Your task to perform on an android device: toggle translation in the chrome app Image 0: 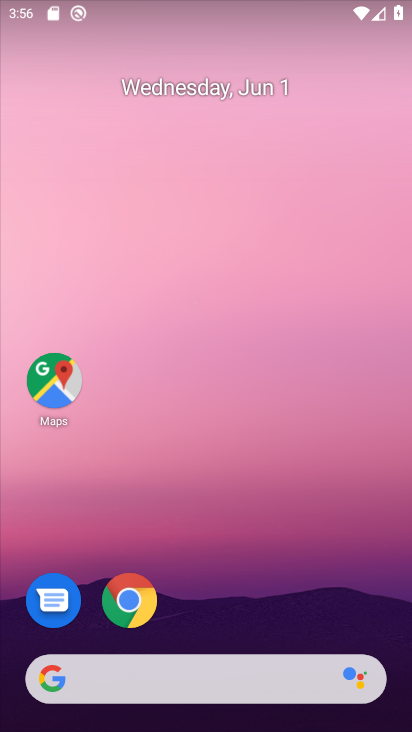
Step 0: click (128, 604)
Your task to perform on an android device: toggle translation in the chrome app Image 1: 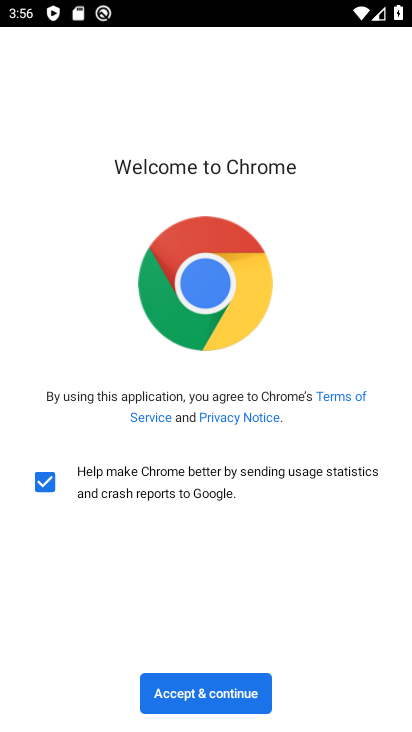
Step 1: click (117, 608)
Your task to perform on an android device: toggle translation in the chrome app Image 2: 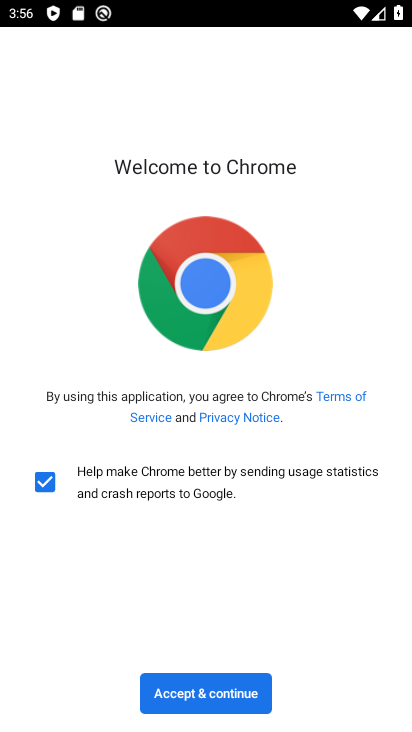
Step 2: drag from (158, 648) to (195, 325)
Your task to perform on an android device: toggle translation in the chrome app Image 3: 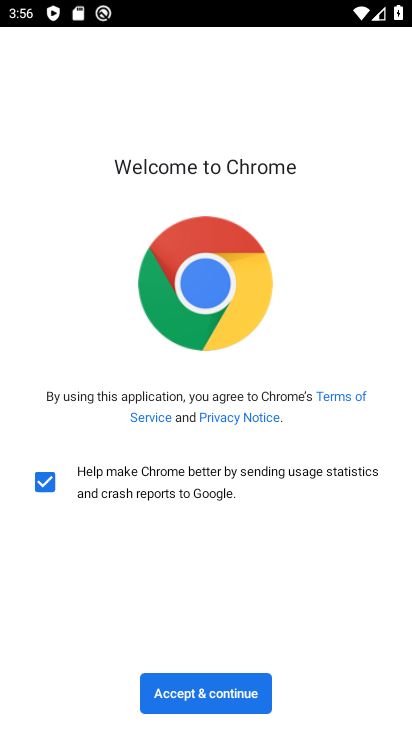
Step 3: click (241, 706)
Your task to perform on an android device: toggle translation in the chrome app Image 4: 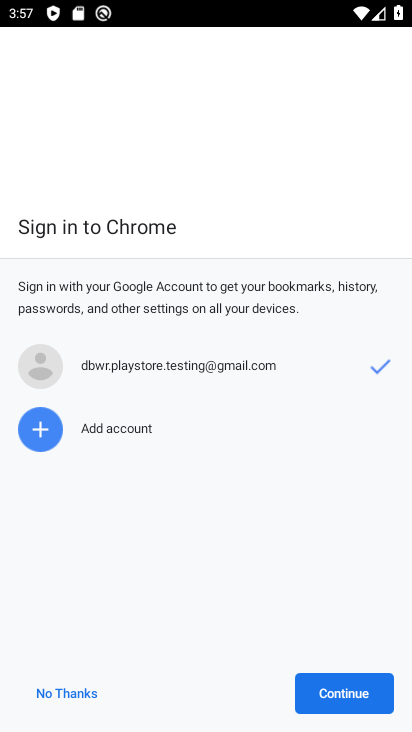
Step 4: click (329, 688)
Your task to perform on an android device: toggle translation in the chrome app Image 5: 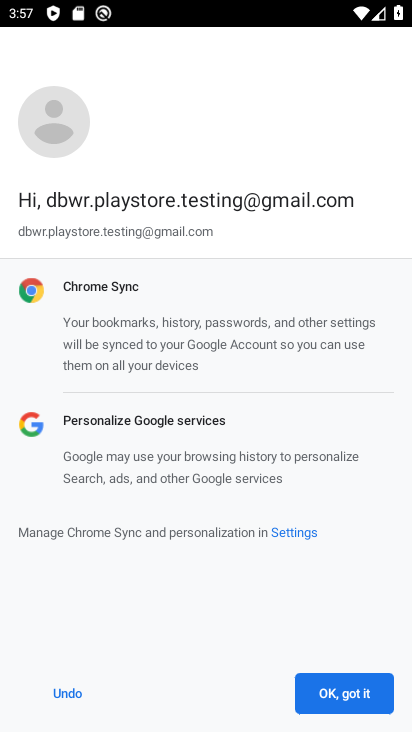
Step 5: click (329, 688)
Your task to perform on an android device: toggle translation in the chrome app Image 6: 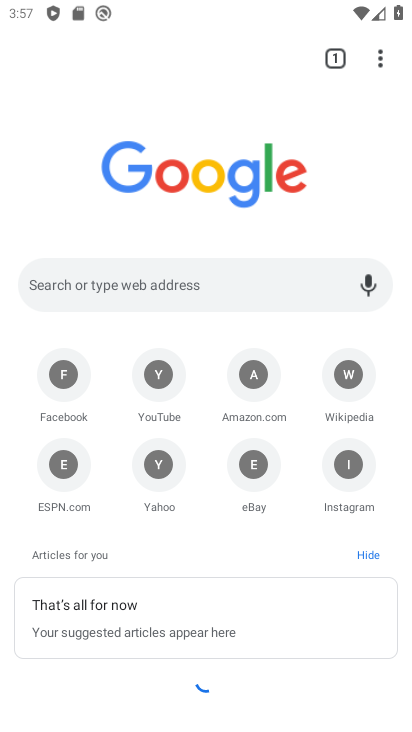
Step 6: click (324, 699)
Your task to perform on an android device: toggle translation in the chrome app Image 7: 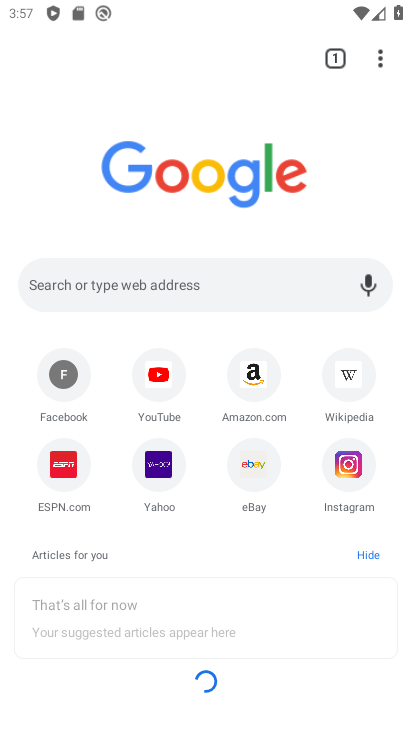
Step 7: click (378, 54)
Your task to perform on an android device: toggle translation in the chrome app Image 8: 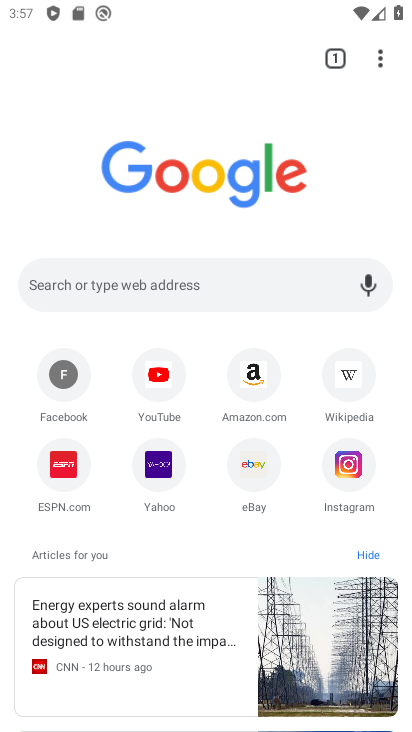
Step 8: click (398, 57)
Your task to perform on an android device: toggle translation in the chrome app Image 9: 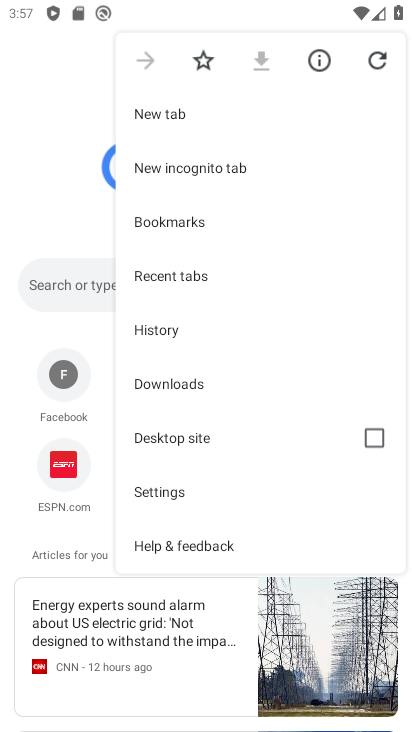
Step 9: click (380, 56)
Your task to perform on an android device: toggle translation in the chrome app Image 10: 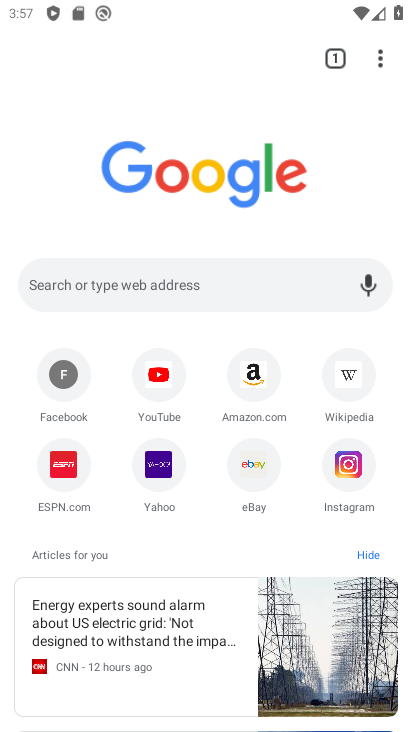
Step 10: click (381, 60)
Your task to perform on an android device: toggle translation in the chrome app Image 11: 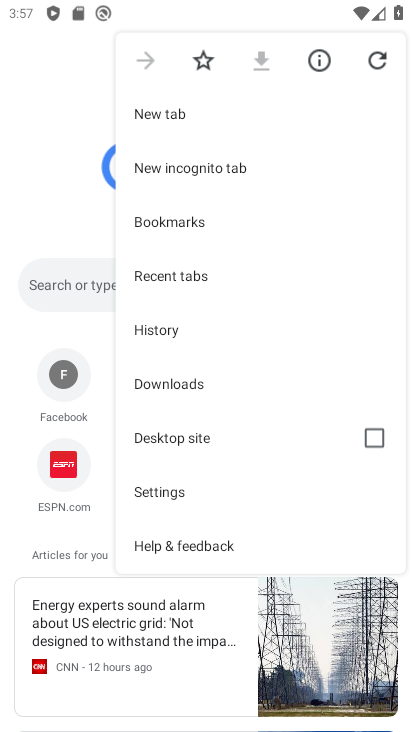
Step 11: click (179, 494)
Your task to perform on an android device: toggle translation in the chrome app Image 12: 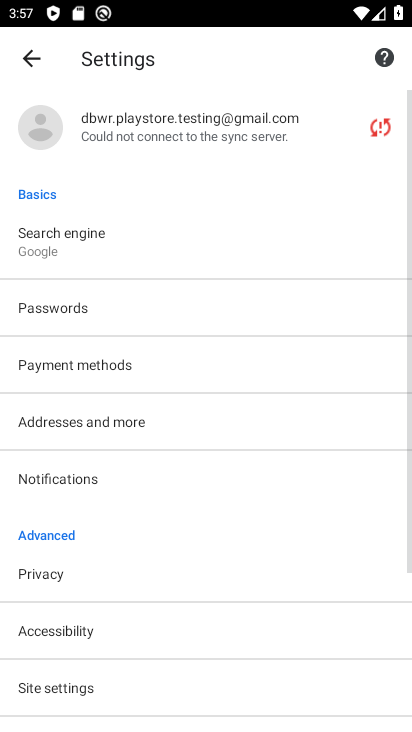
Step 12: drag from (148, 596) to (165, 298)
Your task to perform on an android device: toggle translation in the chrome app Image 13: 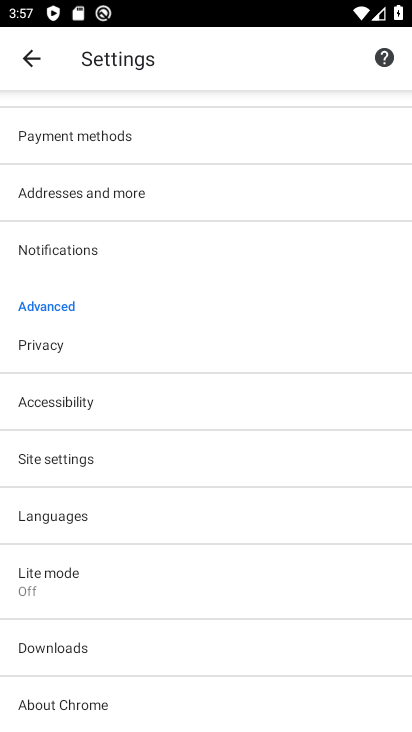
Step 13: click (45, 522)
Your task to perform on an android device: toggle translation in the chrome app Image 14: 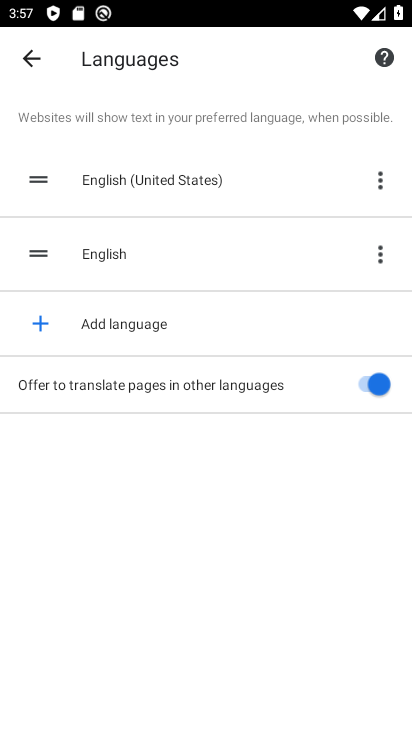
Step 14: click (364, 380)
Your task to perform on an android device: toggle translation in the chrome app Image 15: 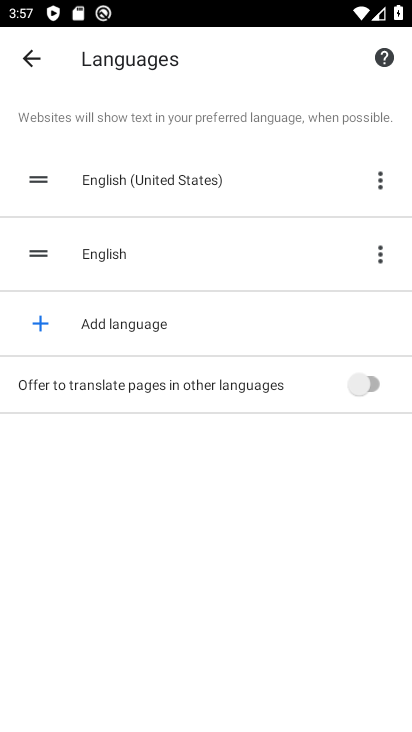
Step 15: task complete